Your task to perform on an android device: Go to settings Image 0: 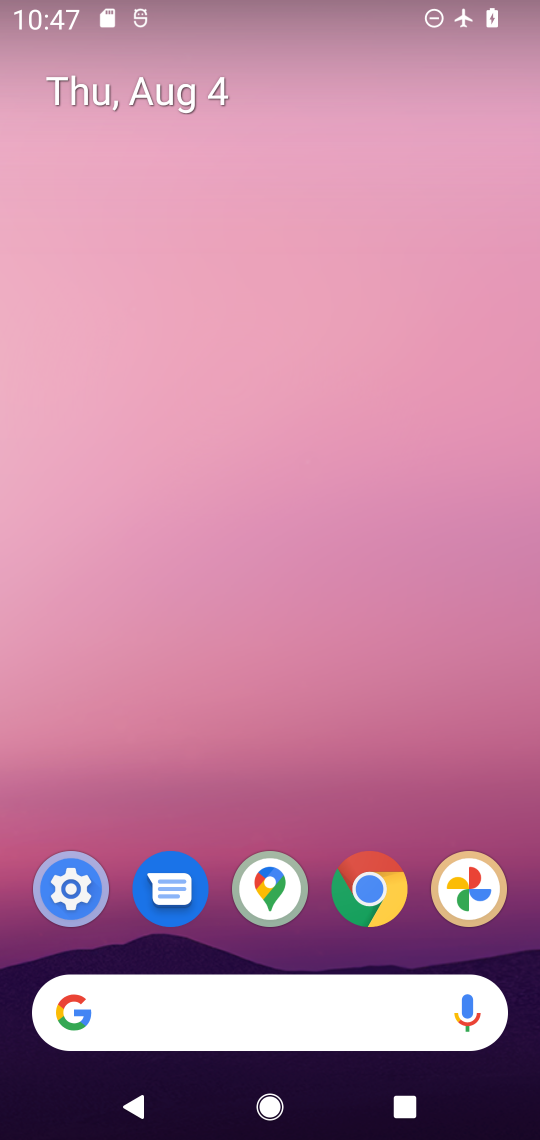
Step 0: press home button
Your task to perform on an android device: Go to settings Image 1: 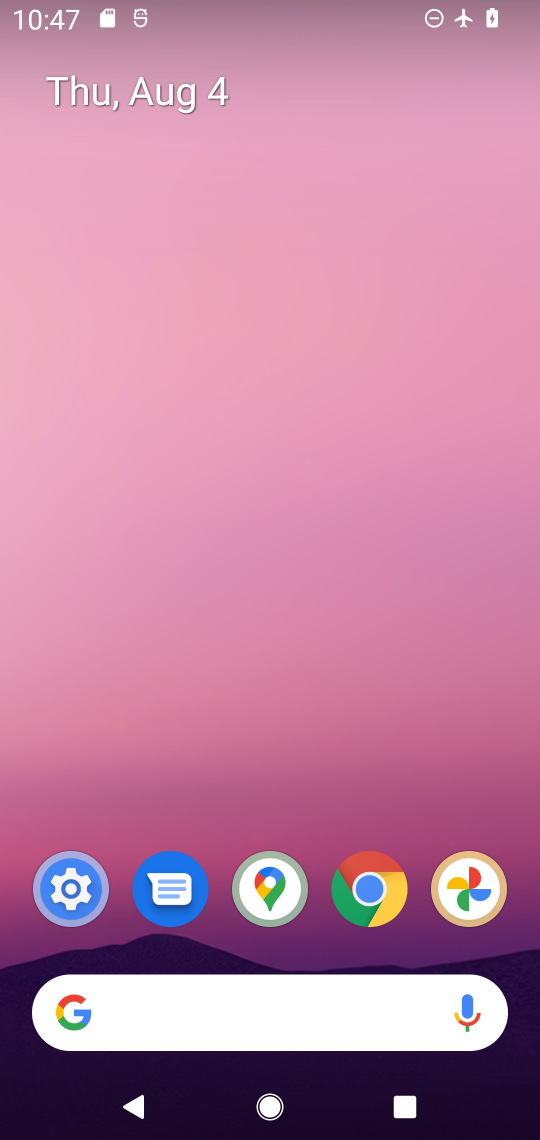
Step 1: drag from (299, 592) to (300, 185)
Your task to perform on an android device: Go to settings Image 2: 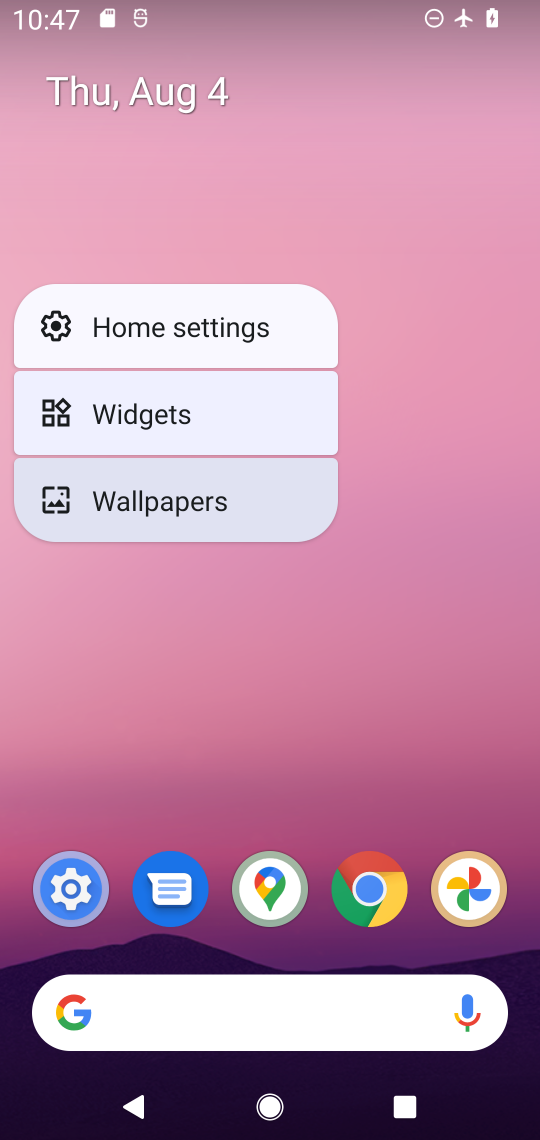
Step 2: click (449, 591)
Your task to perform on an android device: Go to settings Image 3: 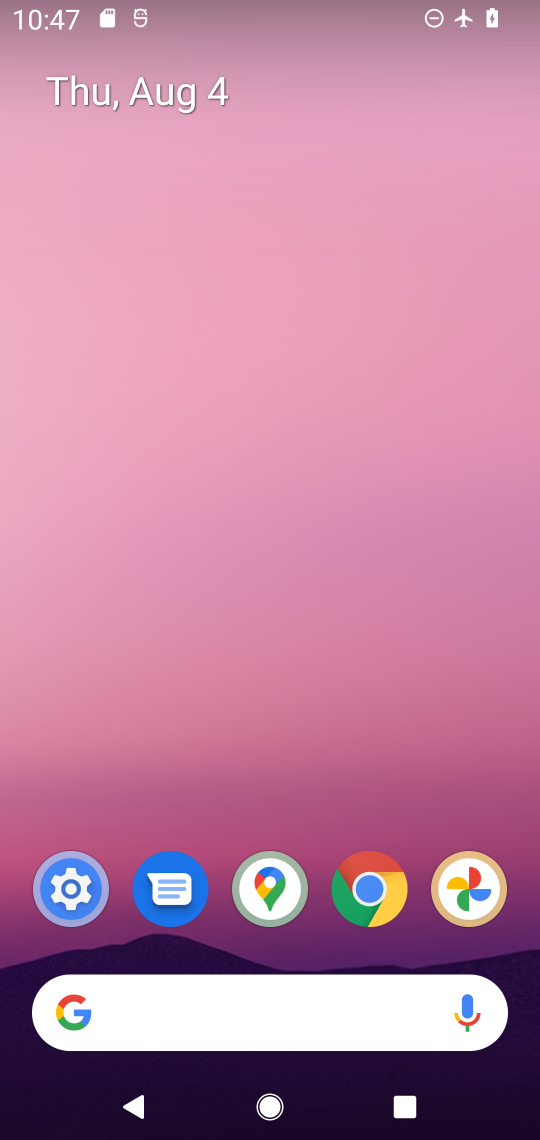
Step 3: drag from (290, 715) to (291, 144)
Your task to perform on an android device: Go to settings Image 4: 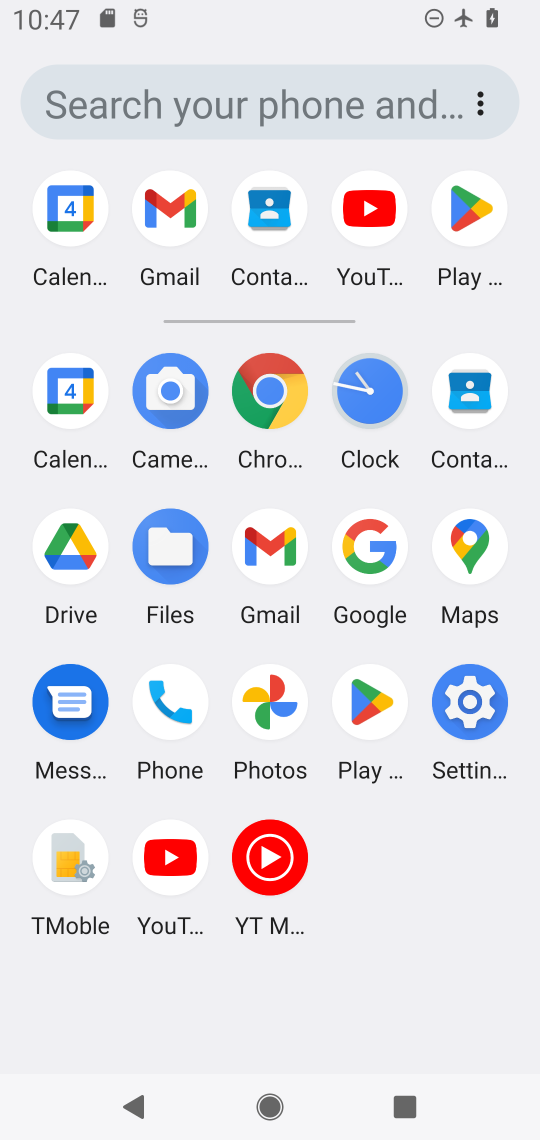
Step 4: click (467, 702)
Your task to perform on an android device: Go to settings Image 5: 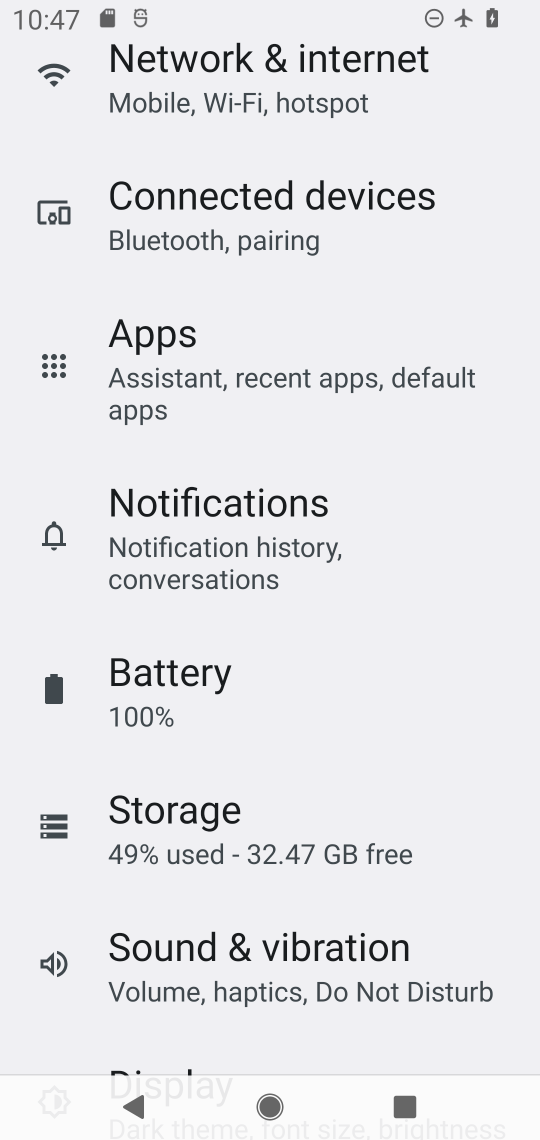
Step 5: task complete